Your task to perform on an android device: Open settings on Google Maps Image 0: 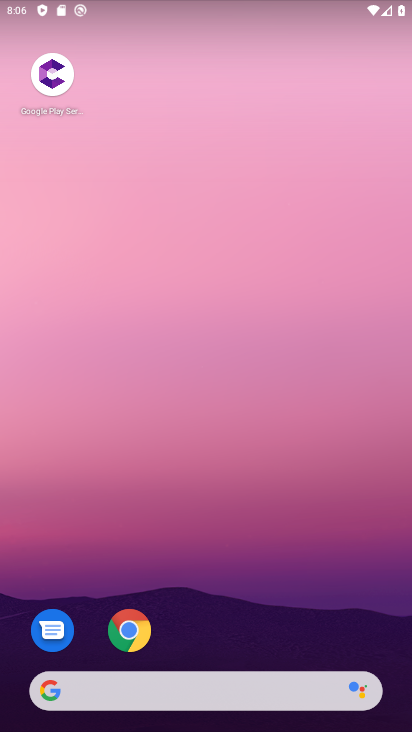
Step 0: drag from (117, 390) to (119, 133)
Your task to perform on an android device: Open settings on Google Maps Image 1: 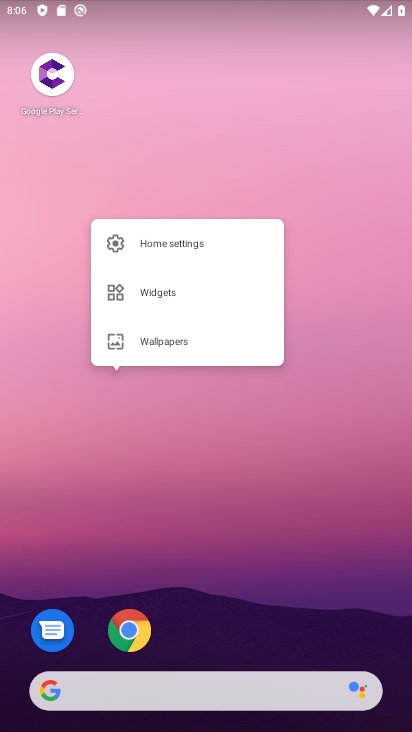
Step 1: click (251, 523)
Your task to perform on an android device: Open settings on Google Maps Image 2: 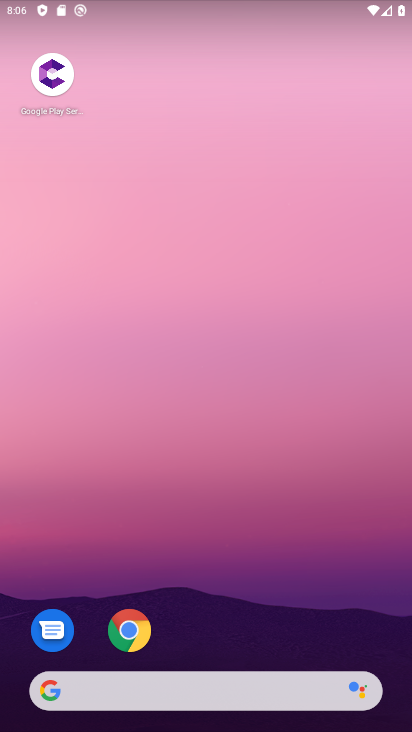
Step 2: drag from (276, 610) to (201, 124)
Your task to perform on an android device: Open settings on Google Maps Image 3: 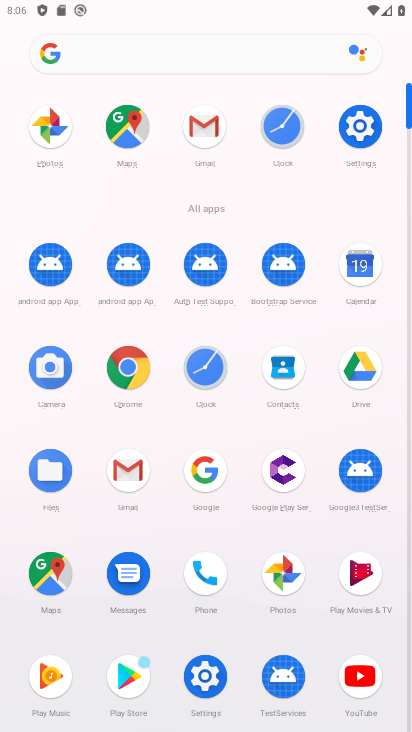
Step 3: click (63, 582)
Your task to perform on an android device: Open settings on Google Maps Image 4: 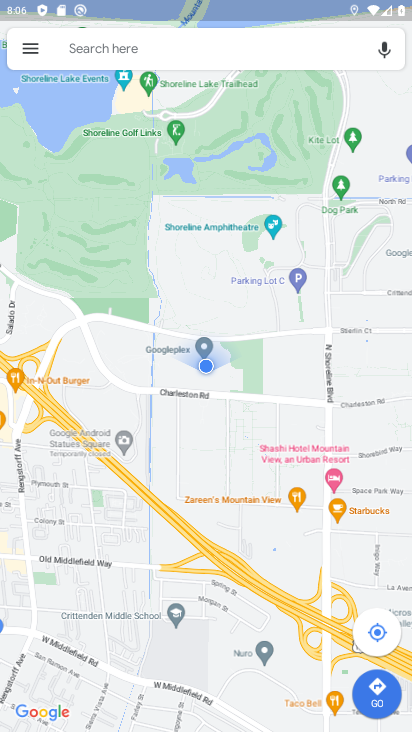
Step 4: click (34, 58)
Your task to perform on an android device: Open settings on Google Maps Image 5: 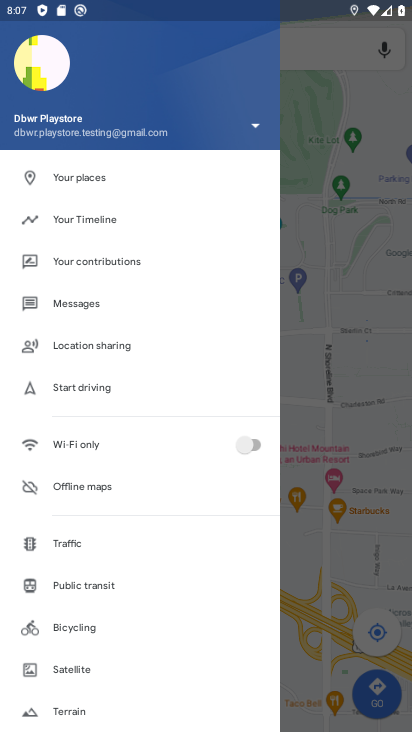
Step 5: drag from (100, 599) to (254, 88)
Your task to perform on an android device: Open settings on Google Maps Image 6: 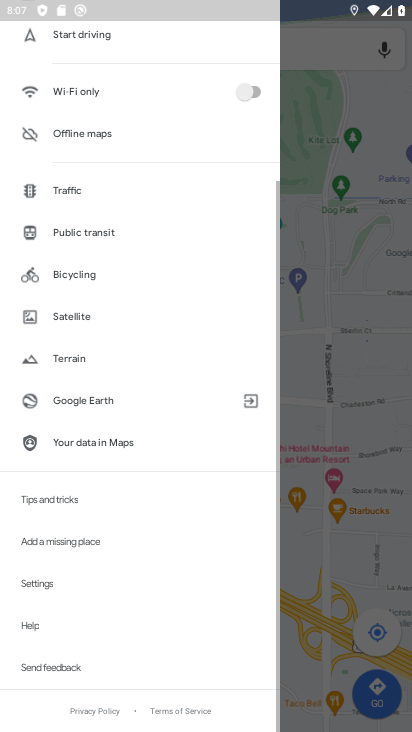
Step 6: click (87, 575)
Your task to perform on an android device: Open settings on Google Maps Image 7: 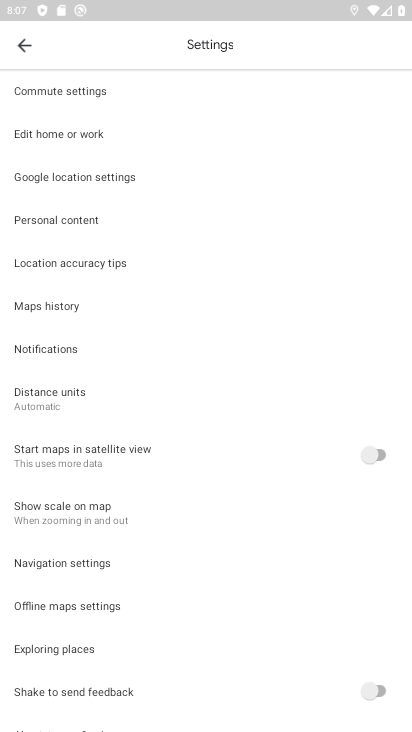
Step 7: task complete